Your task to perform on an android device: Show me popular games on the Play Store Image 0: 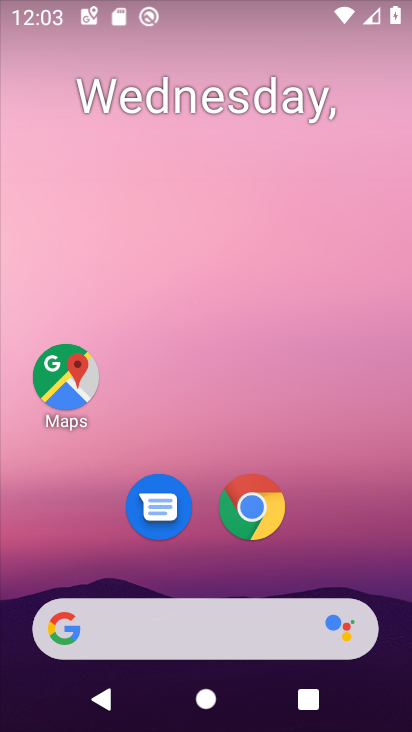
Step 0: drag from (281, 655) to (371, 16)
Your task to perform on an android device: Show me popular games on the Play Store Image 1: 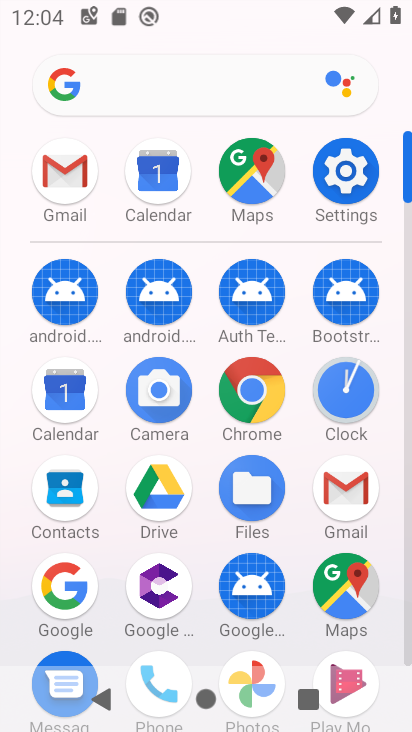
Step 1: drag from (282, 607) to (262, 215)
Your task to perform on an android device: Show me popular games on the Play Store Image 2: 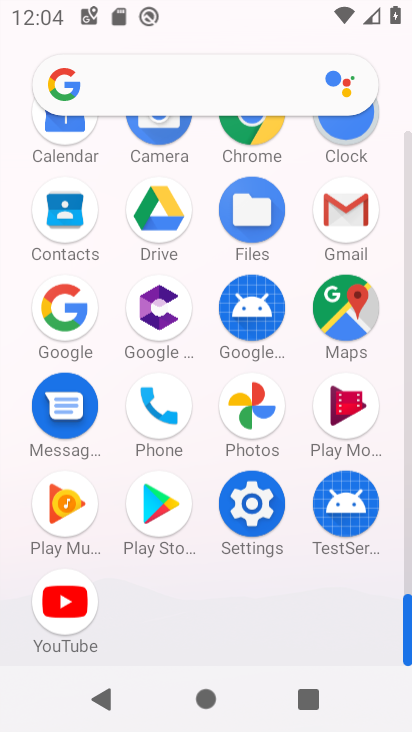
Step 2: drag from (281, 553) to (281, 219)
Your task to perform on an android device: Show me popular games on the Play Store Image 3: 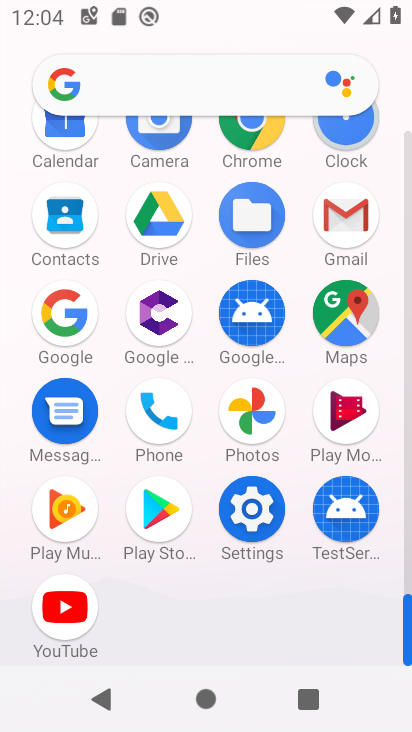
Step 3: click (169, 524)
Your task to perform on an android device: Show me popular games on the Play Store Image 4: 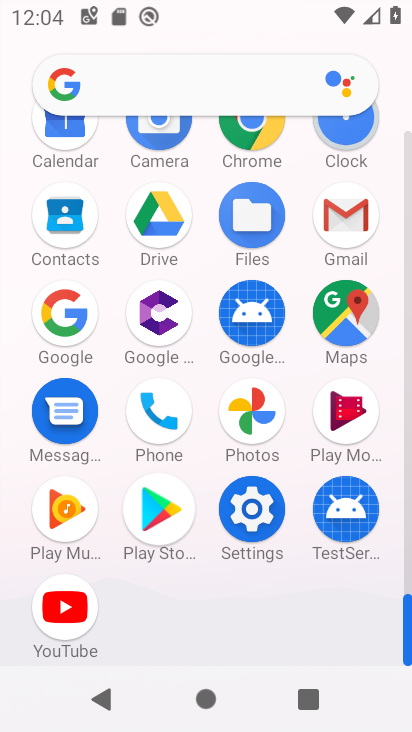
Step 4: click (160, 514)
Your task to perform on an android device: Show me popular games on the Play Store Image 5: 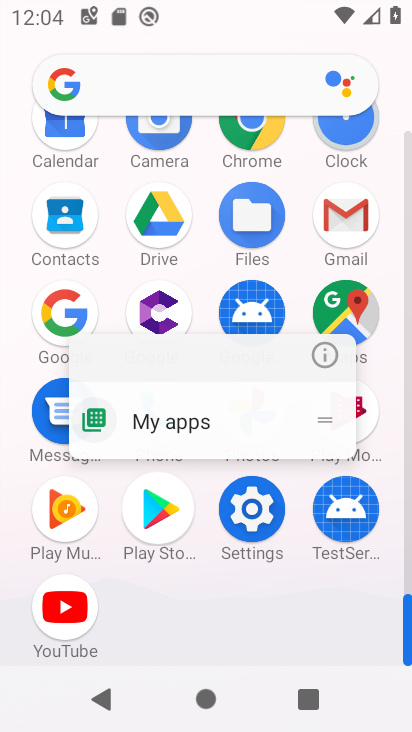
Step 5: click (159, 512)
Your task to perform on an android device: Show me popular games on the Play Store Image 6: 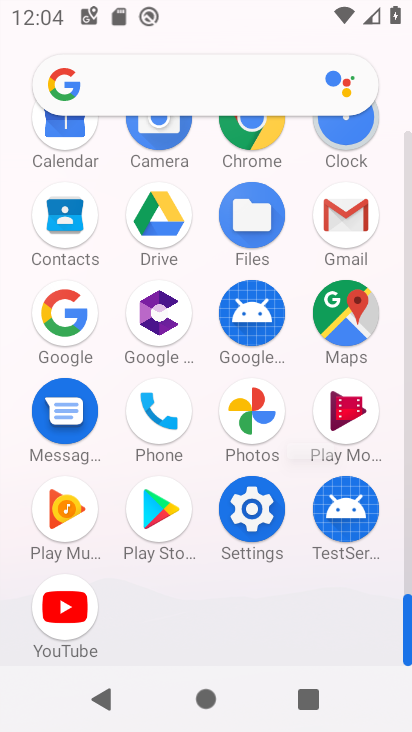
Step 6: click (152, 504)
Your task to perform on an android device: Show me popular games on the Play Store Image 7: 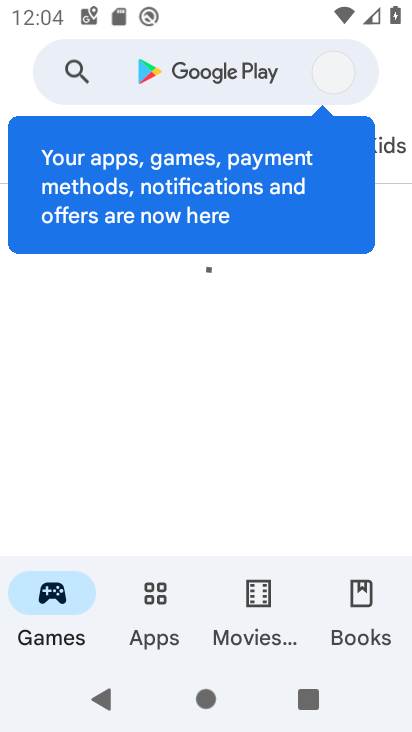
Step 7: click (156, 505)
Your task to perform on an android device: Show me popular games on the Play Store Image 8: 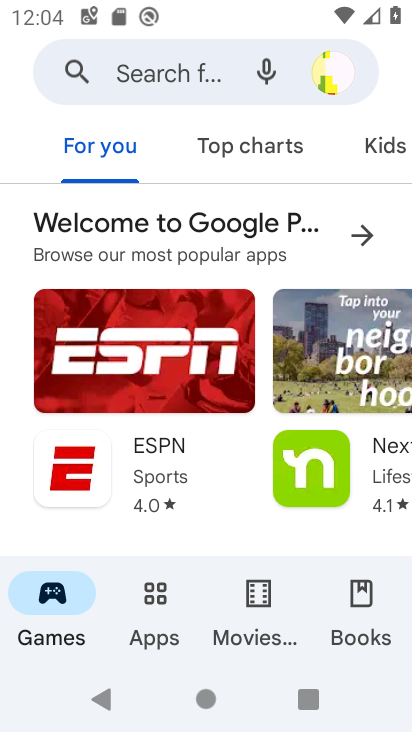
Step 8: click (145, 82)
Your task to perform on an android device: Show me popular games on the Play Store Image 9: 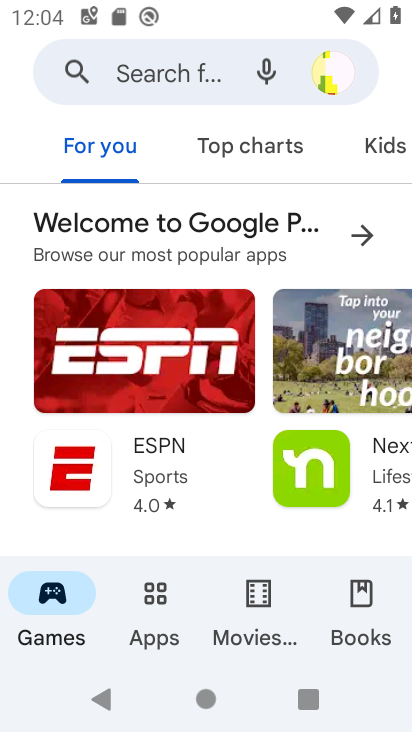
Step 9: click (145, 82)
Your task to perform on an android device: Show me popular games on the Play Store Image 10: 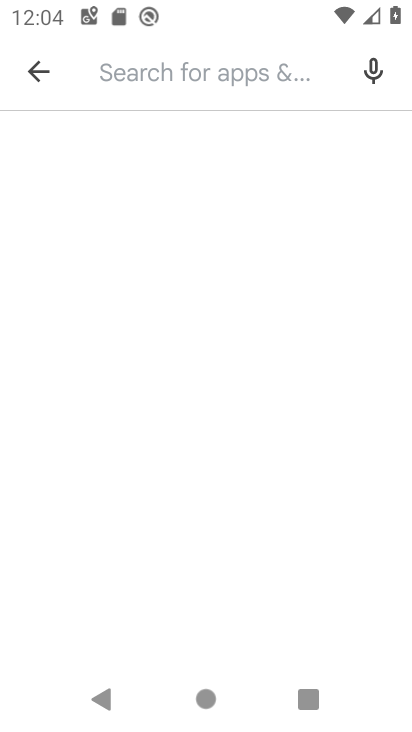
Step 10: click (145, 82)
Your task to perform on an android device: Show me popular games on the Play Store Image 11: 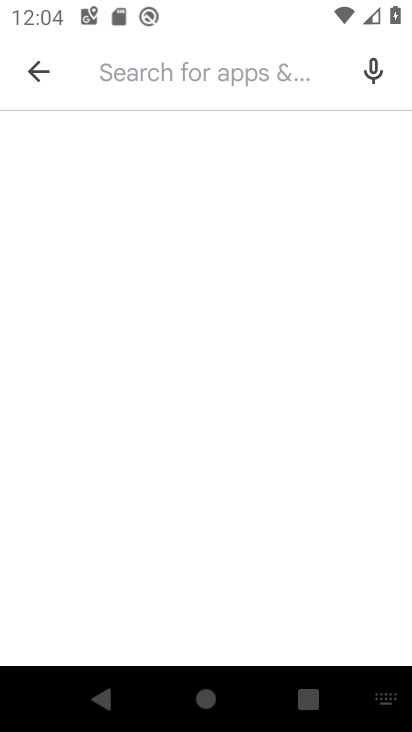
Step 11: click (130, 68)
Your task to perform on an android device: Show me popular games on the Play Store Image 12: 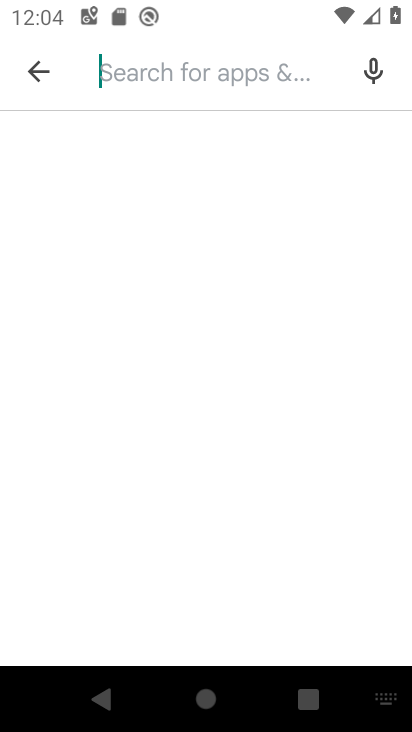
Step 12: type "popular games"
Your task to perform on an android device: Show me popular games on the Play Store Image 13: 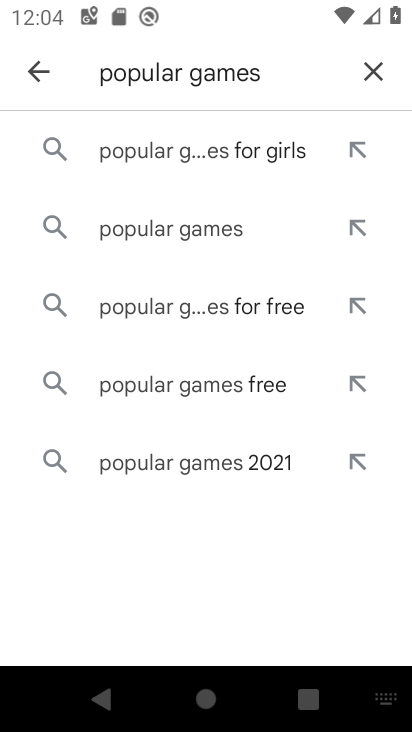
Step 13: click (180, 150)
Your task to perform on an android device: Show me popular games on the Play Store Image 14: 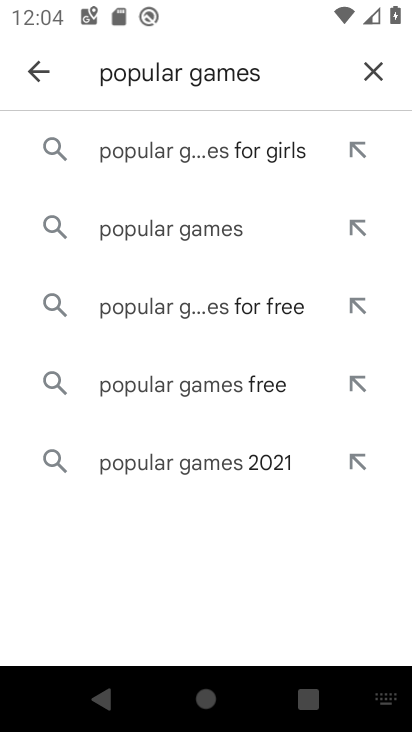
Step 14: click (180, 150)
Your task to perform on an android device: Show me popular games on the Play Store Image 15: 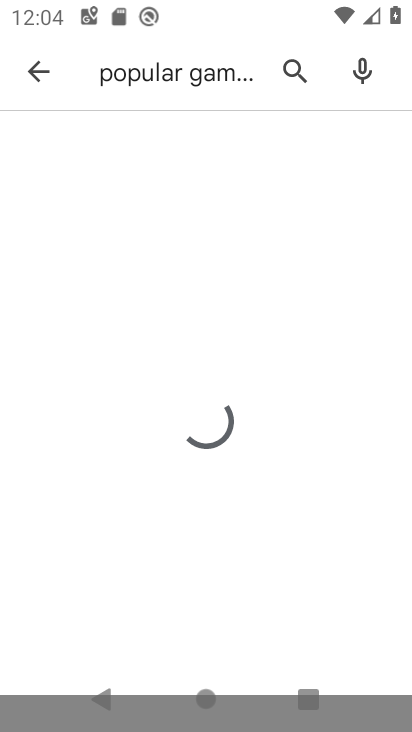
Step 15: click (179, 148)
Your task to perform on an android device: Show me popular games on the Play Store Image 16: 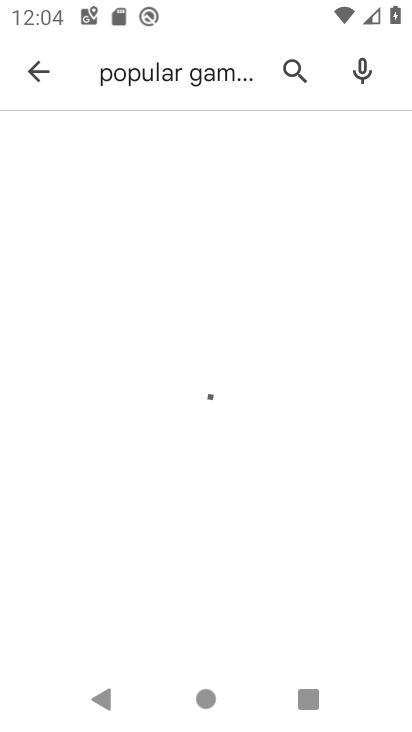
Step 16: click (179, 148)
Your task to perform on an android device: Show me popular games on the Play Store Image 17: 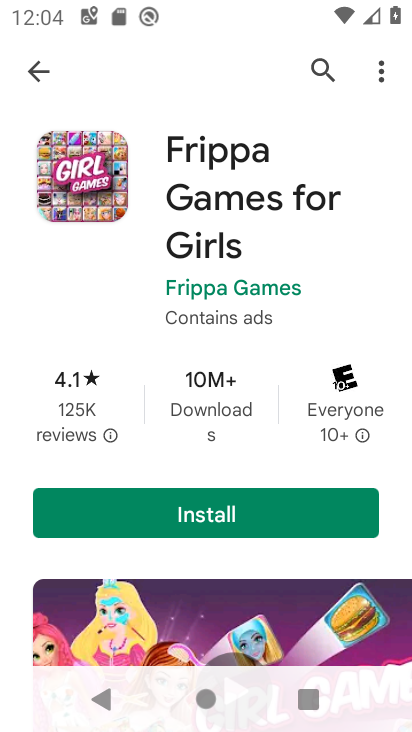
Step 17: task complete